Your task to perform on an android device: change the upload size in google photos Image 0: 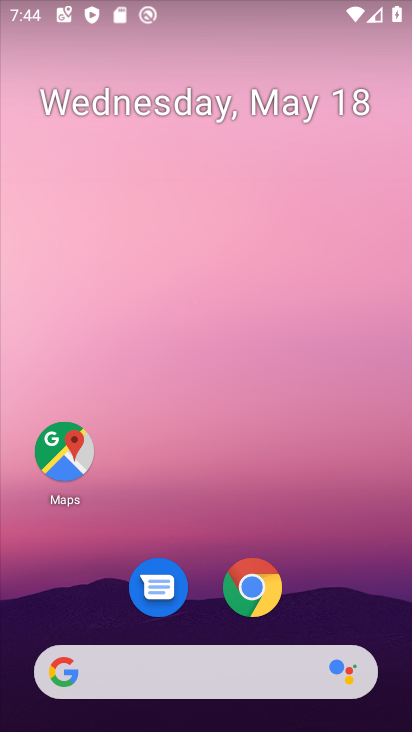
Step 0: drag from (201, 615) to (250, 29)
Your task to perform on an android device: change the upload size in google photos Image 1: 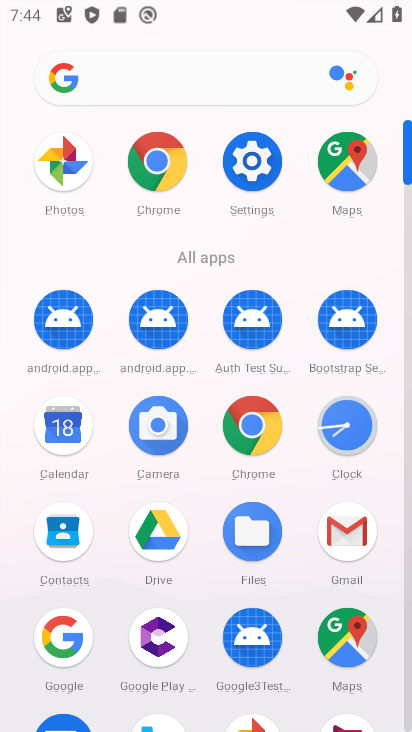
Step 1: click (65, 190)
Your task to perform on an android device: change the upload size in google photos Image 2: 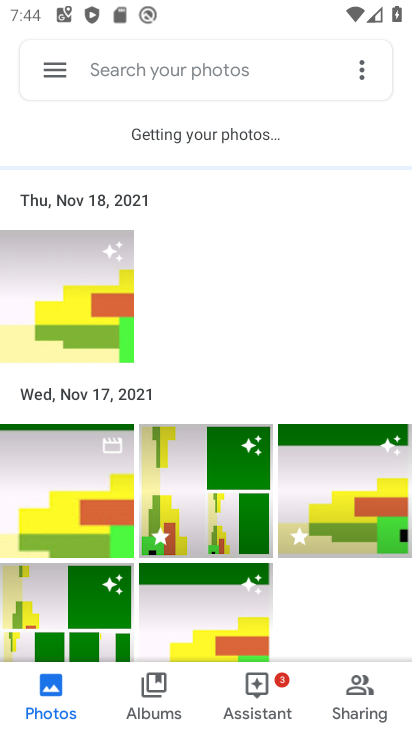
Step 2: click (57, 81)
Your task to perform on an android device: change the upload size in google photos Image 3: 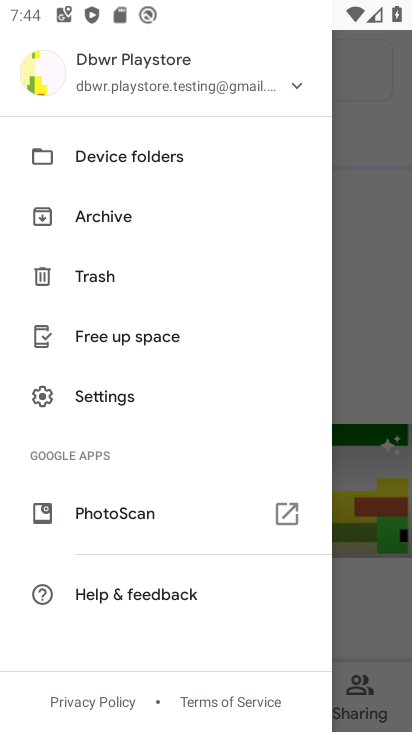
Step 3: click (97, 401)
Your task to perform on an android device: change the upload size in google photos Image 4: 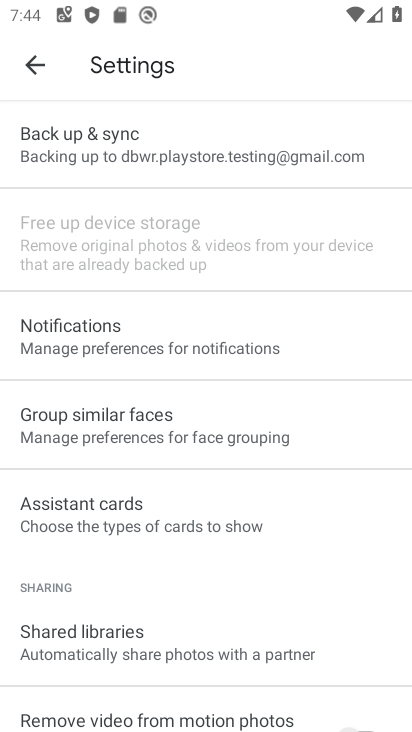
Step 4: click (99, 128)
Your task to perform on an android device: change the upload size in google photos Image 5: 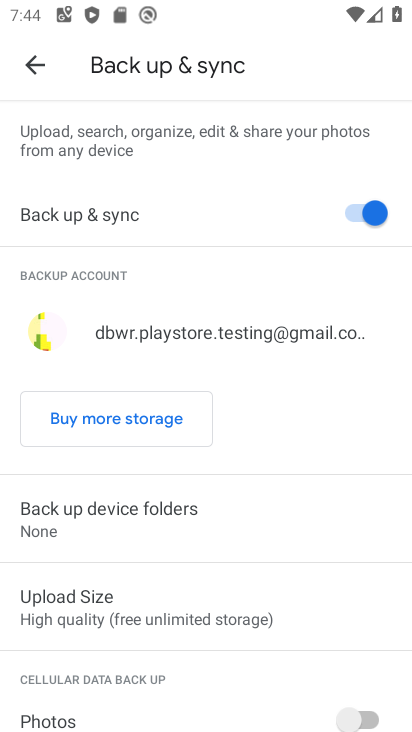
Step 5: click (106, 614)
Your task to perform on an android device: change the upload size in google photos Image 6: 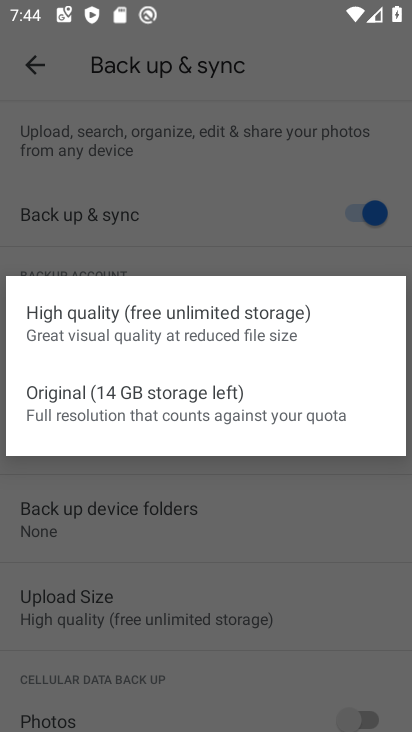
Step 6: click (219, 379)
Your task to perform on an android device: change the upload size in google photos Image 7: 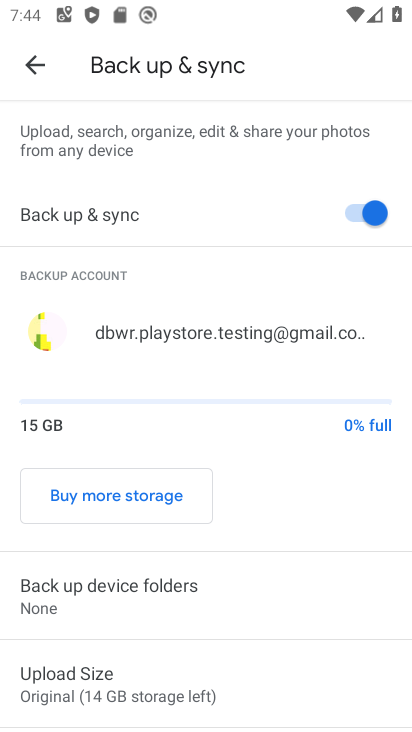
Step 7: task complete